Your task to perform on an android device: refresh tabs in the chrome app Image 0: 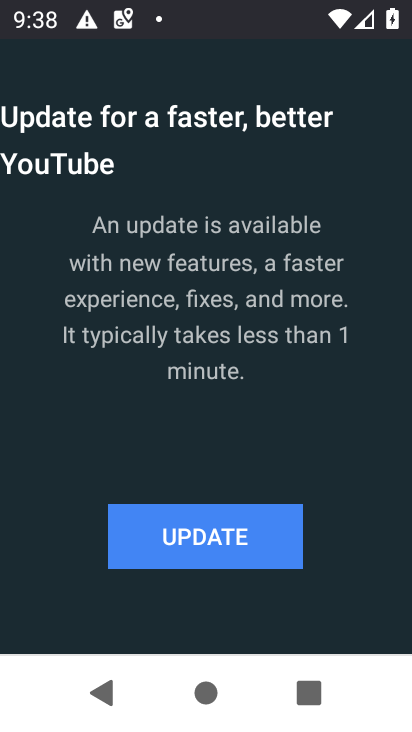
Step 0: press home button
Your task to perform on an android device: refresh tabs in the chrome app Image 1: 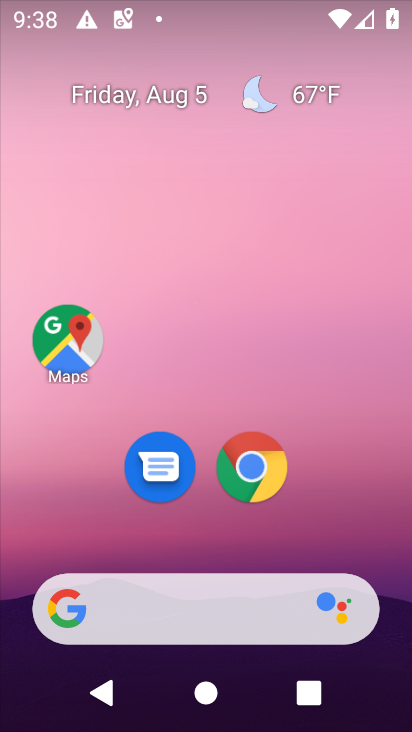
Step 1: drag from (167, 592) to (178, 46)
Your task to perform on an android device: refresh tabs in the chrome app Image 2: 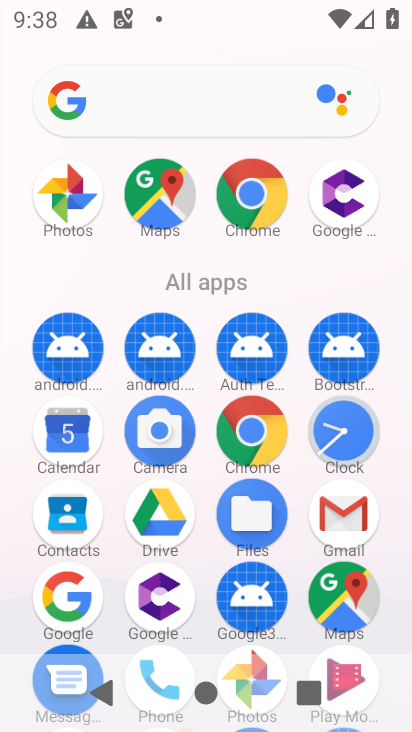
Step 2: click (253, 429)
Your task to perform on an android device: refresh tabs in the chrome app Image 3: 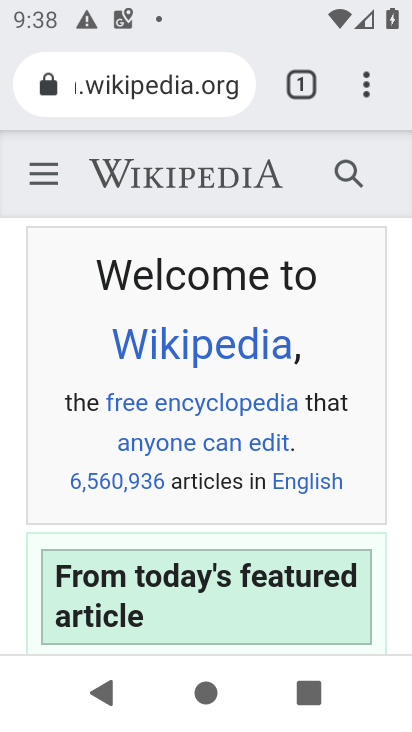
Step 3: click (370, 85)
Your task to perform on an android device: refresh tabs in the chrome app Image 4: 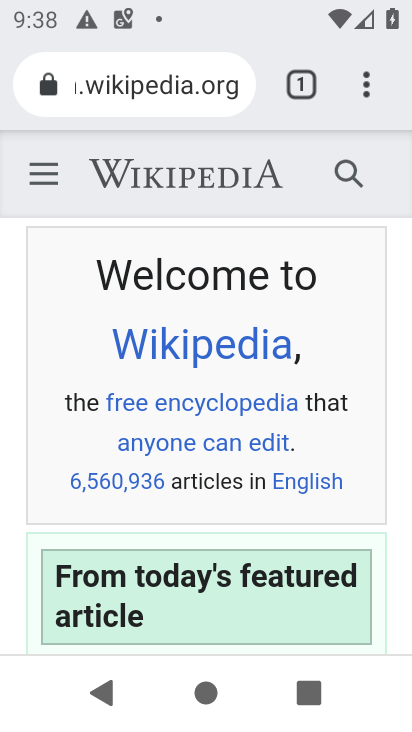
Step 4: click (364, 88)
Your task to perform on an android device: refresh tabs in the chrome app Image 5: 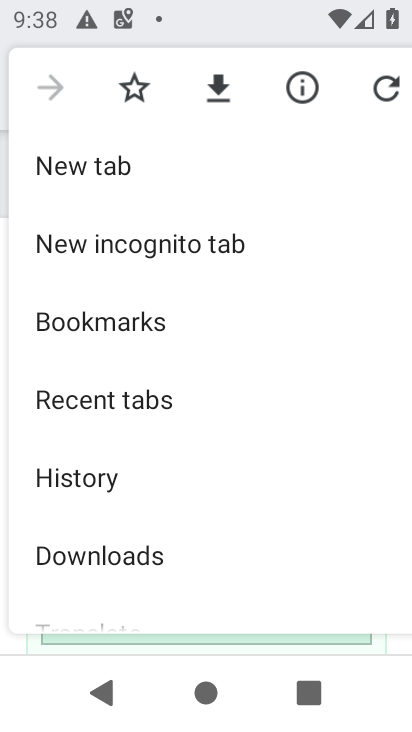
Step 5: click (378, 92)
Your task to perform on an android device: refresh tabs in the chrome app Image 6: 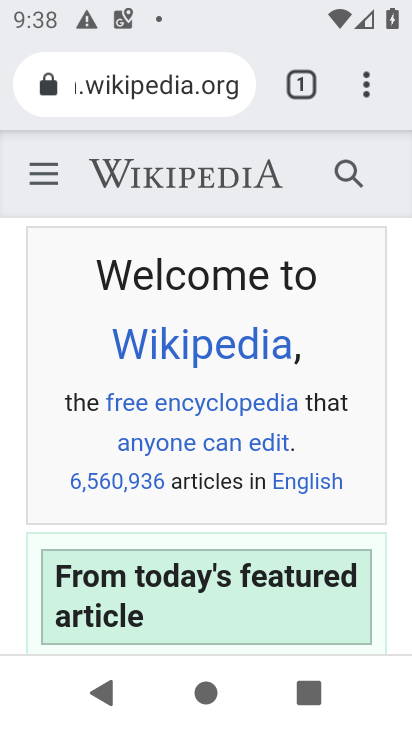
Step 6: task complete